Your task to perform on an android device: turn off wifi Image 0: 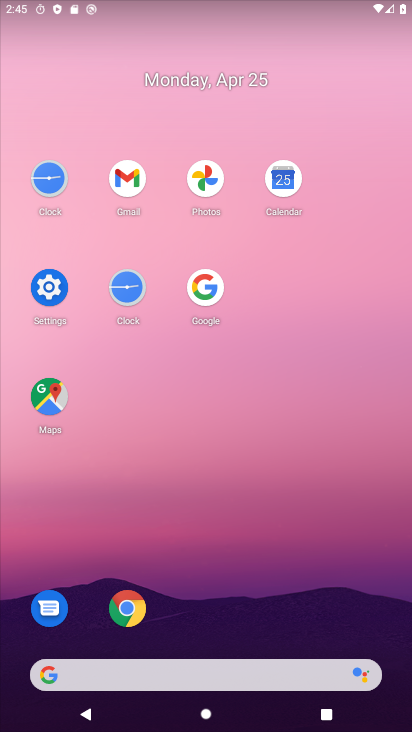
Step 0: click (44, 288)
Your task to perform on an android device: turn off wifi Image 1: 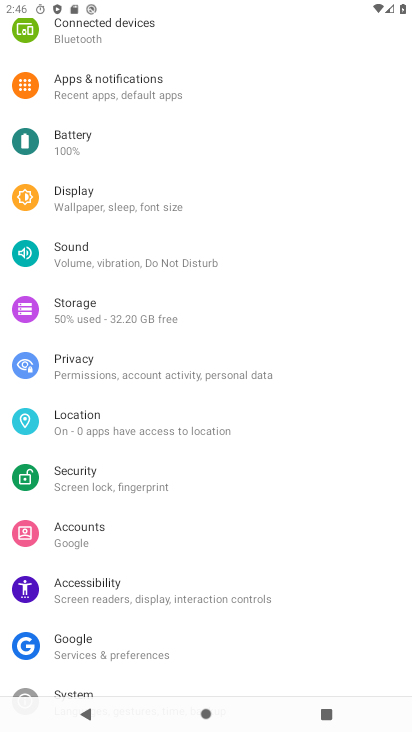
Step 1: drag from (200, 133) to (163, 651)
Your task to perform on an android device: turn off wifi Image 2: 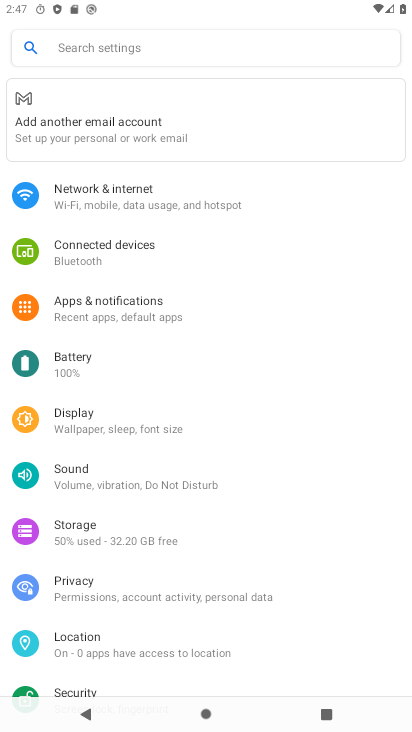
Step 2: click (125, 212)
Your task to perform on an android device: turn off wifi Image 3: 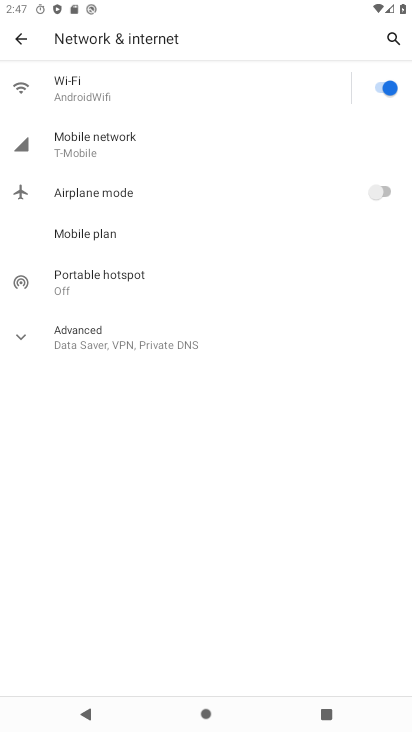
Step 3: click (384, 94)
Your task to perform on an android device: turn off wifi Image 4: 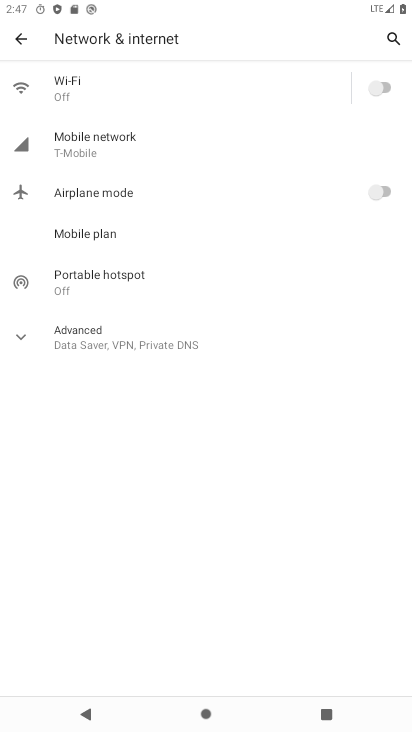
Step 4: task complete